Your task to perform on an android device: Open the stopwatch Image 0: 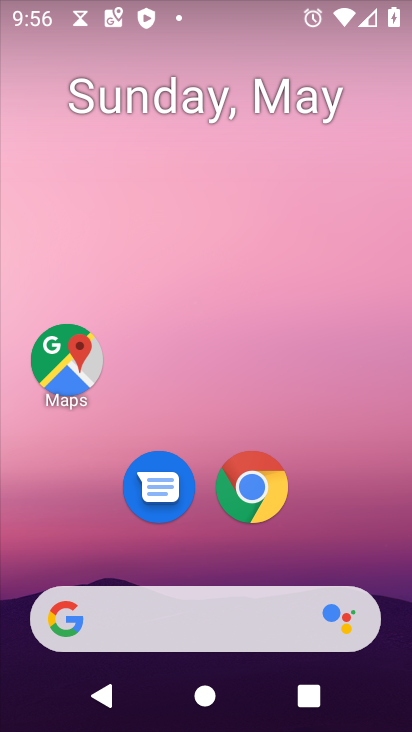
Step 0: drag from (354, 499) to (392, 66)
Your task to perform on an android device: Open the stopwatch Image 1: 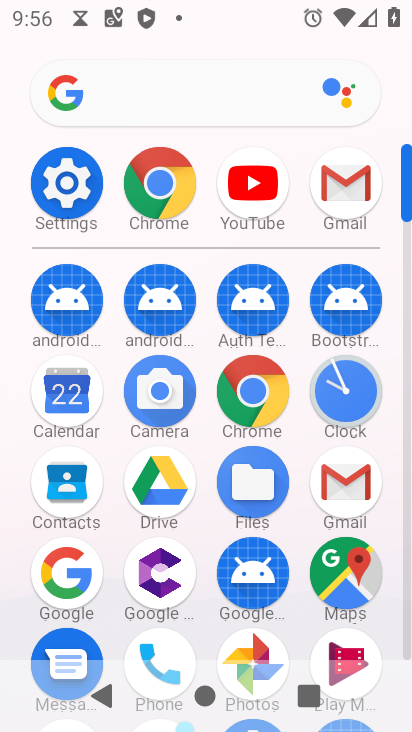
Step 1: drag from (378, 573) to (365, 243)
Your task to perform on an android device: Open the stopwatch Image 2: 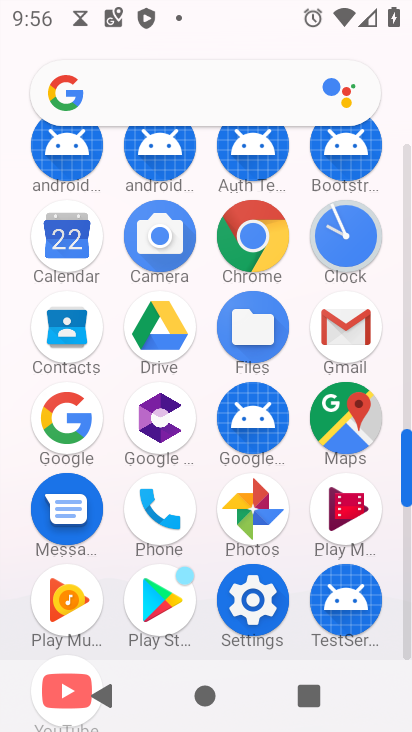
Step 2: drag from (385, 343) to (409, 544)
Your task to perform on an android device: Open the stopwatch Image 3: 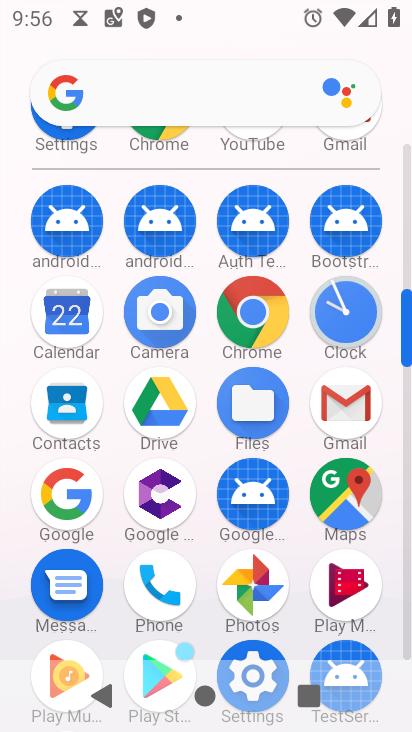
Step 3: click (346, 309)
Your task to perform on an android device: Open the stopwatch Image 4: 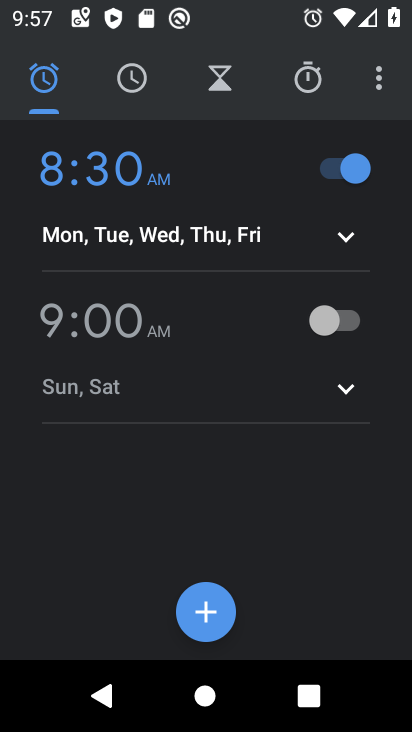
Step 4: click (296, 66)
Your task to perform on an android device: Open the stopwatch Image 5: 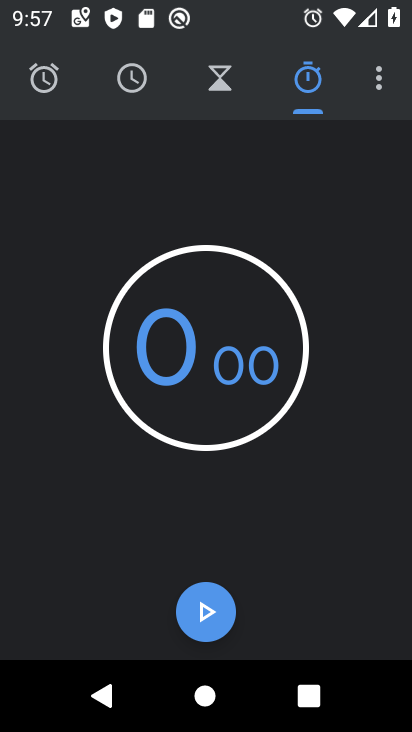
Step 5: click (183, 615)
Your task to perform on an android device: Open the stopwatch Image 6: 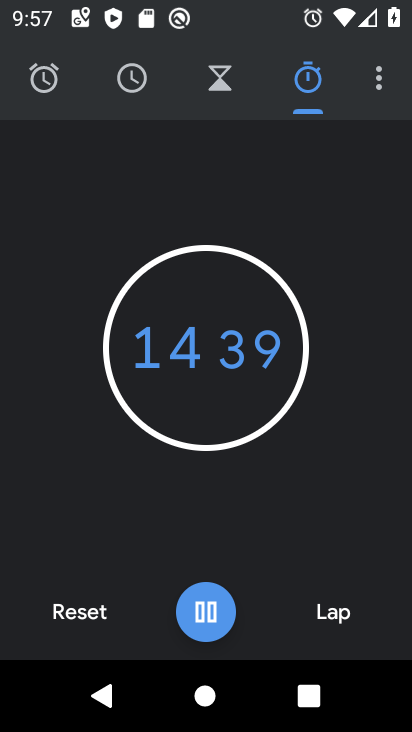
Step 6: task complete